Your task to perform on an android device: Go to sound settings Image 0: 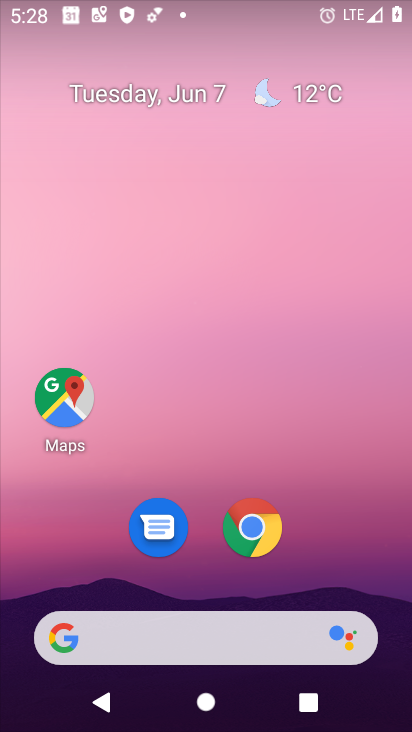
Step 0: drag from (335, 550) to (308, 34)
Your task to perform on an android device: Go to sound settings Image 1: 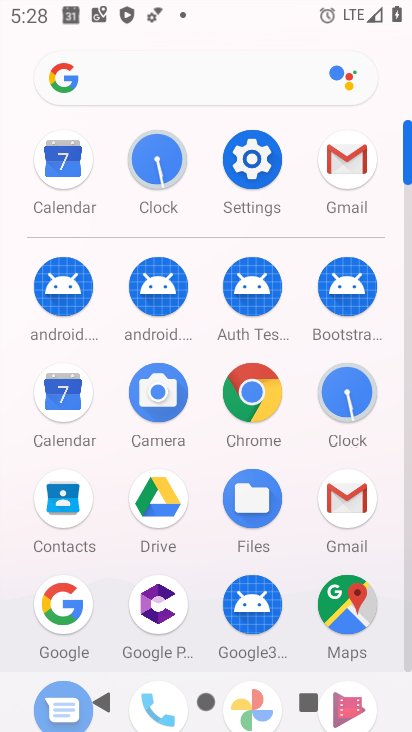
Step 1: click (247, 162)
Your task to perform on an android device: Go to sound settings Image 2: 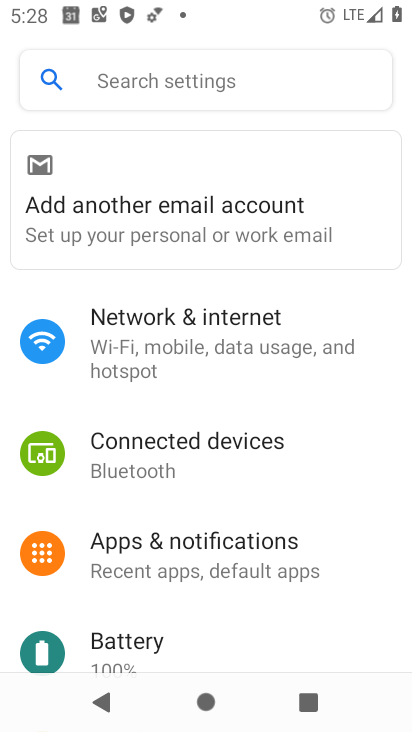
Step 2: drag from (162, 519) to (146, 363)
Your task to perform on an android device: Go to sound settings Image 3: 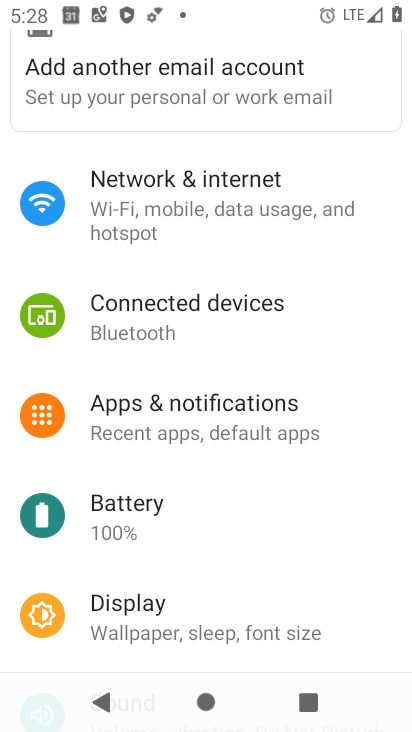
Step 3: drag from (158, 489) to (195, 370)
Your task to perform on an android device: Go to sound settings Image 4: 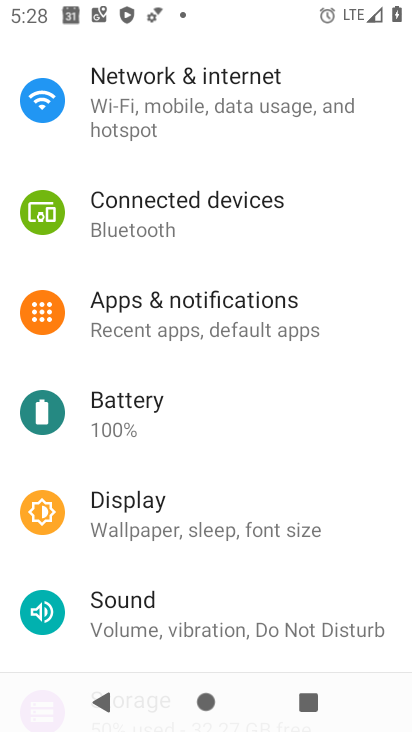
Step 4: click (152, 597)
Your task to perform on an android device: Go to sound settings Image 5: 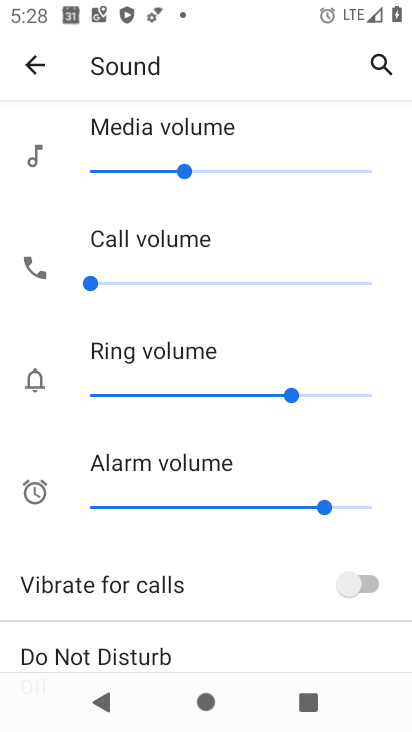
Step 5: task complete